Your task to perform on an android device: check data usage Image 0: 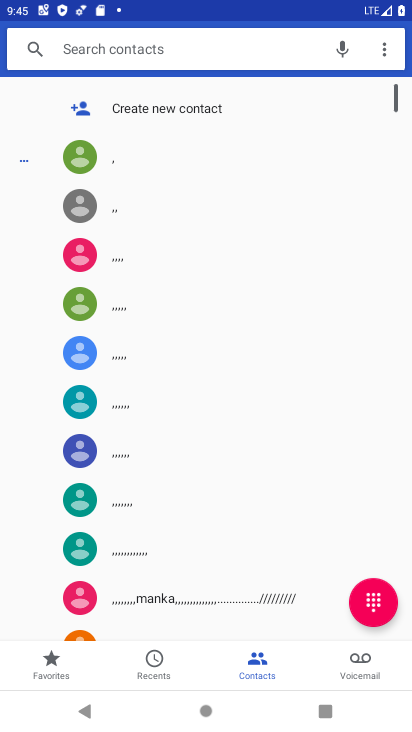
Step 0: press home button
Your task to perform on an android device: check data usage Image 1: 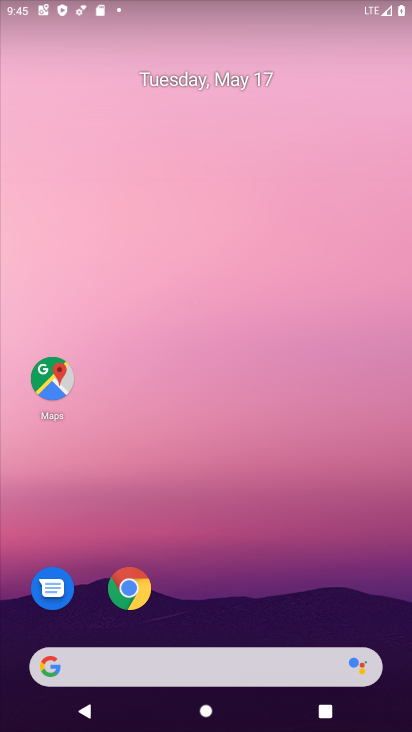
Step 1: drag from (236, 654) to (182, 89)
Your task to perform on an android device: check data usage Image 2: 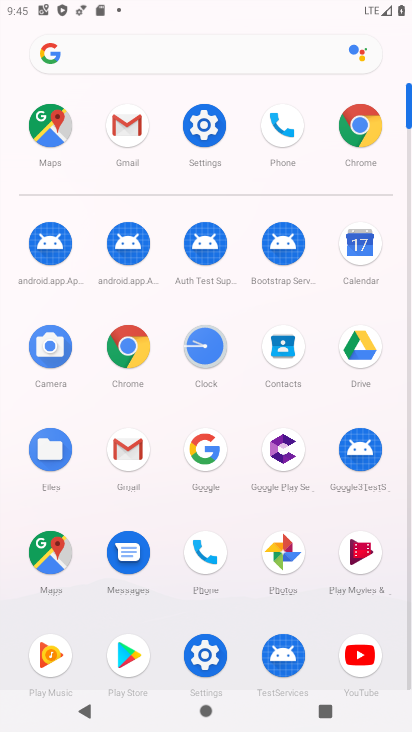
Step 2: click (207, 132)
Your task to perform on an android device: check data usage Image 3: 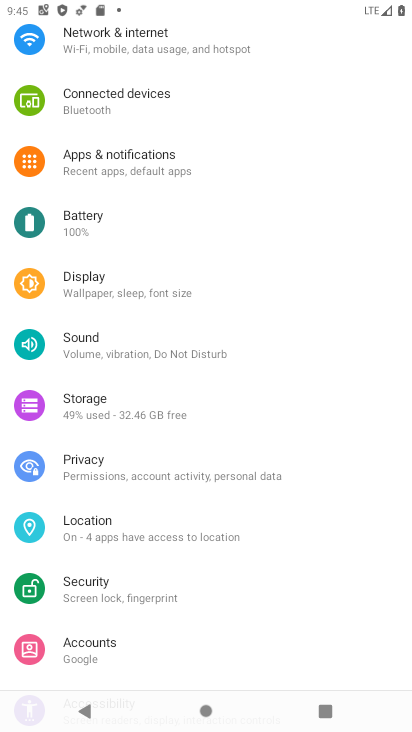
Step 3: drag from (189, 141) to (158, 640)
Your task to perform on an android device: check data usage Image 4: 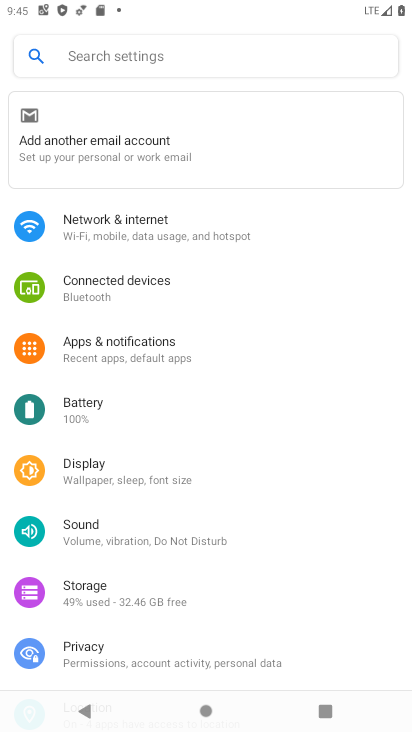
Step 4: click (140, 246)
Your task to perform on an android device: check data usage Image 5: 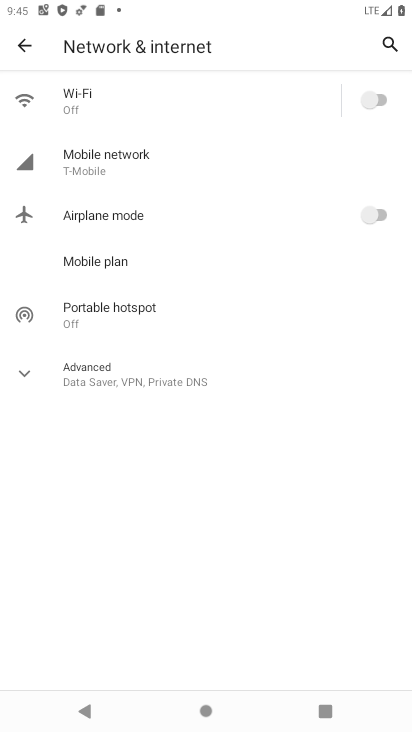
Step 5: click (114, 157)
Your task to perform on an android device: check data usage Image 6: 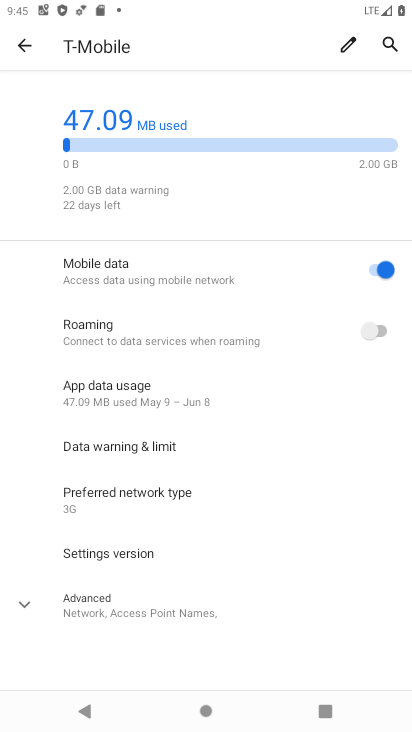
Step 6: task complete